Your task to perform on an android device: open app "LiveIn - Share Your Moment" (install if not already installed), go to login, and select forgot password Image 0: 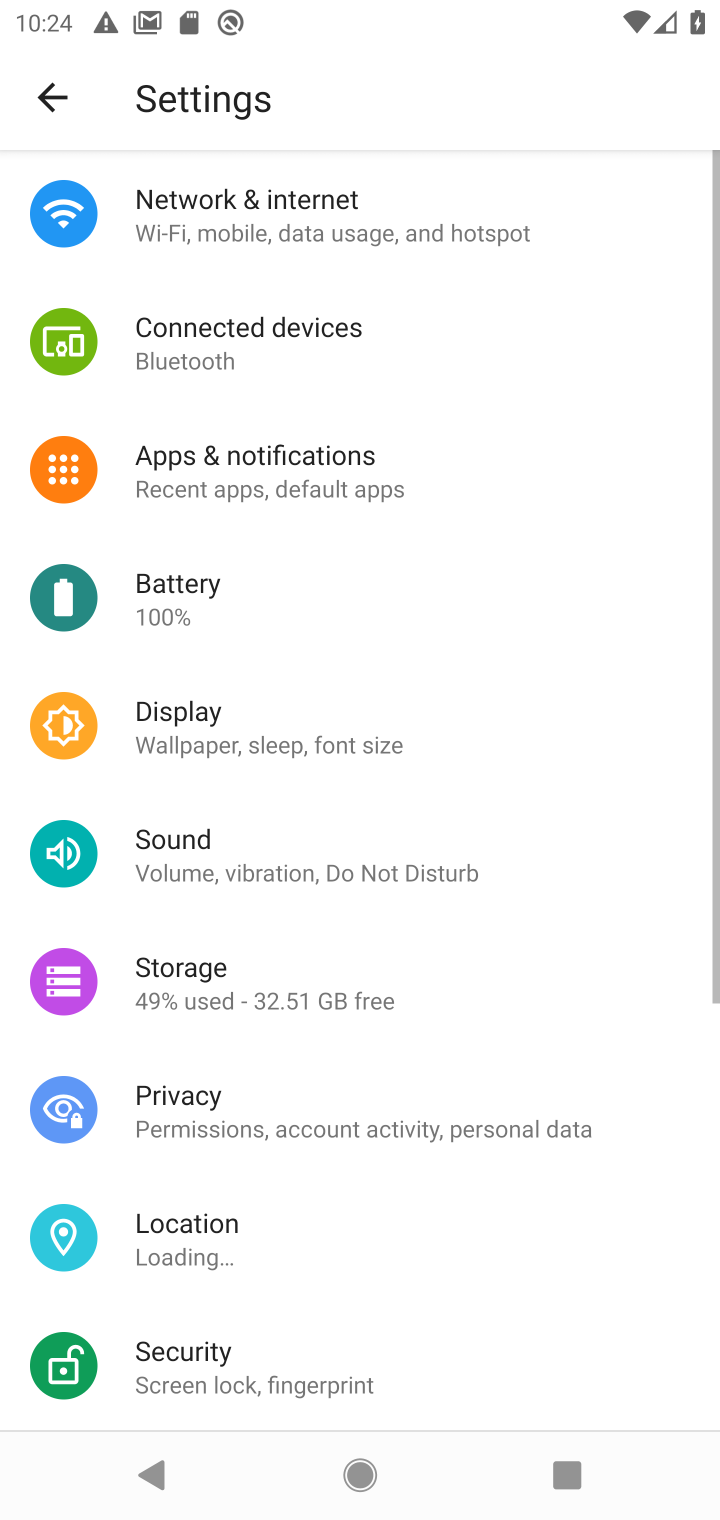
Step 0: press home button
Your task to perform on an android device: open app "LiveIn - Share Your Moment" (install if not already installed), go to login, and select forgot password Image 1: 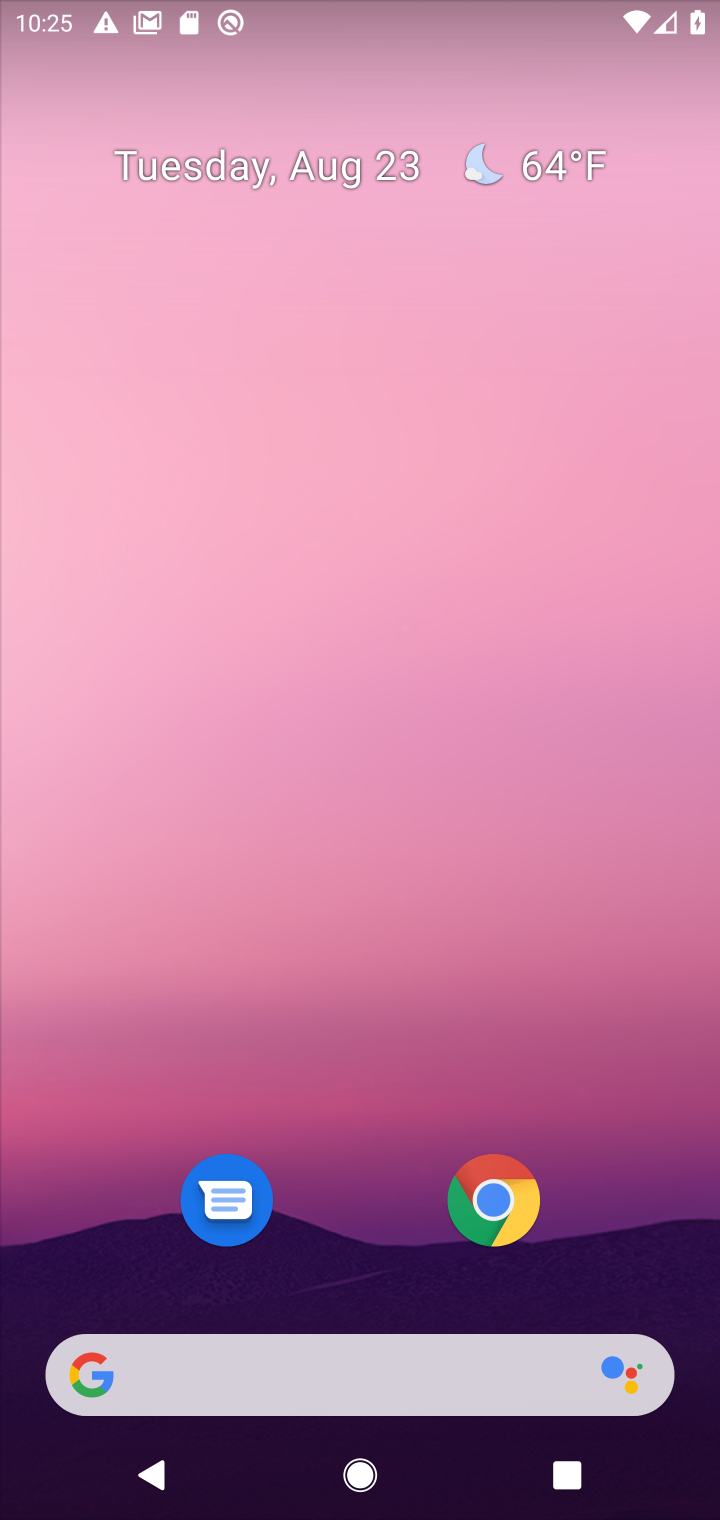
Step 1: drag from (375, 1308) to (250, 350)
Your task to perform on an android device: open app "LiveIn - Share Your Moment" (install if not already installed), go to login, and select forgot password Image 2: 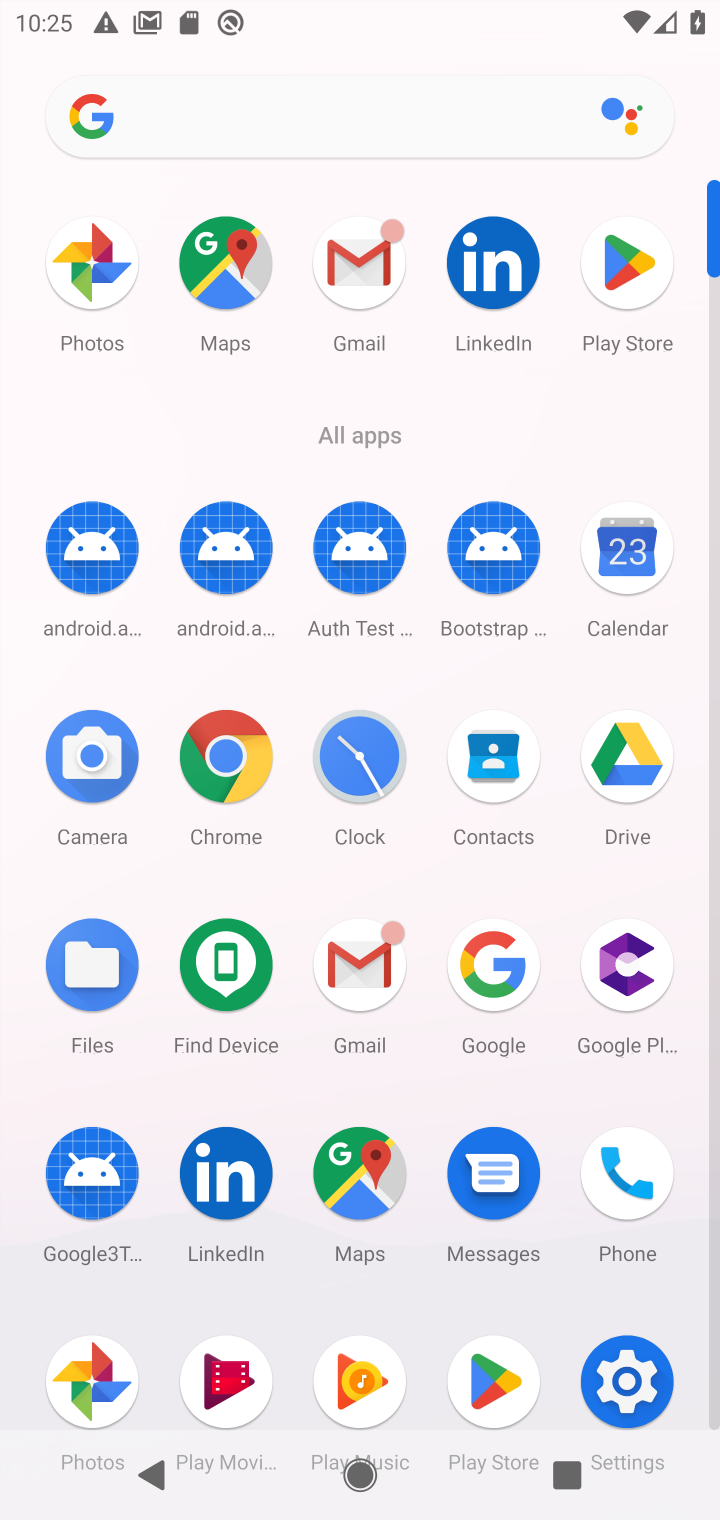
Step 2: click (635, 312)
Your task to perform on an android device: open app "LiveIn - Share Your Moment" (install if not already installed), go to login, and select forgot password Image 3: 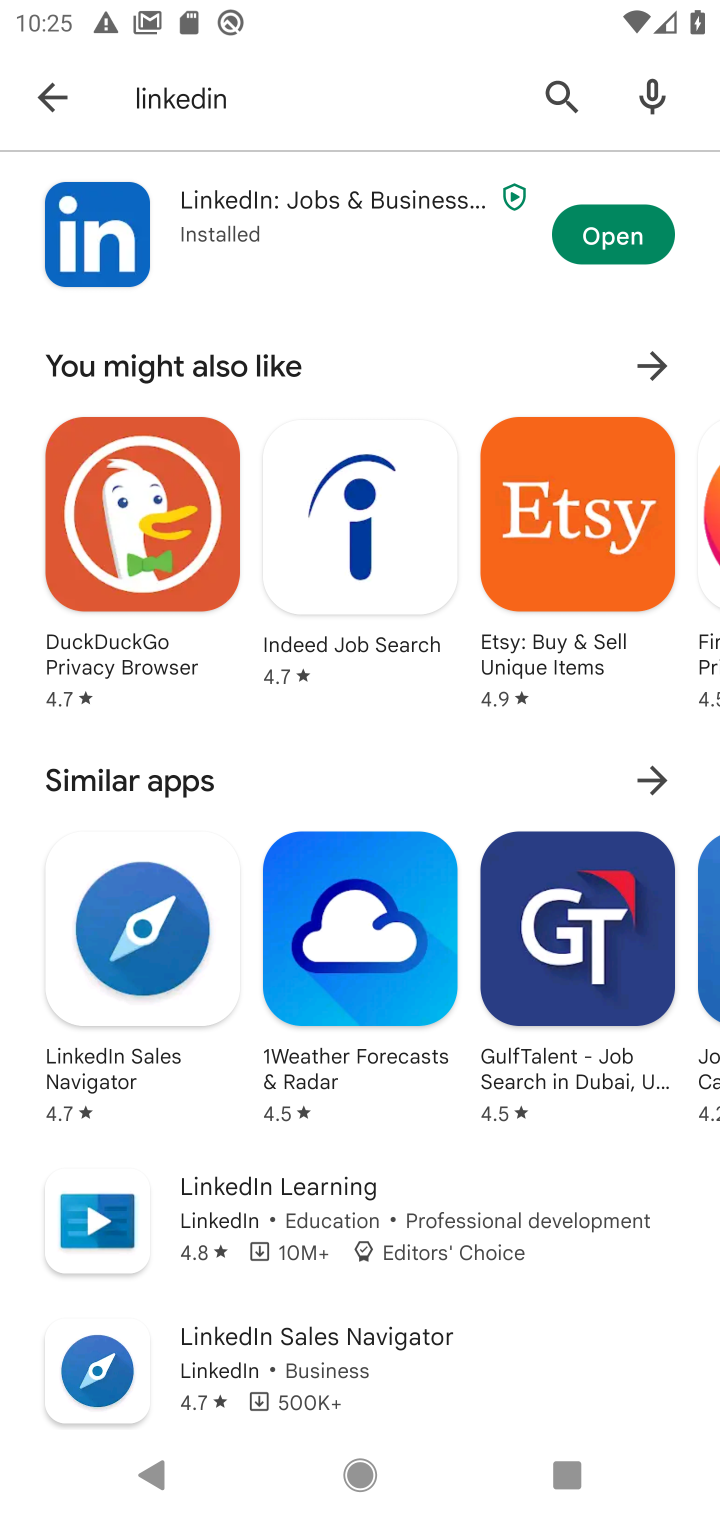
Step 3: click (53, 108)
Your task to perform on an android device: open app "LiveIn - Share Your Moment" (install if not already installed), go to login, and select forgot password Image 4: 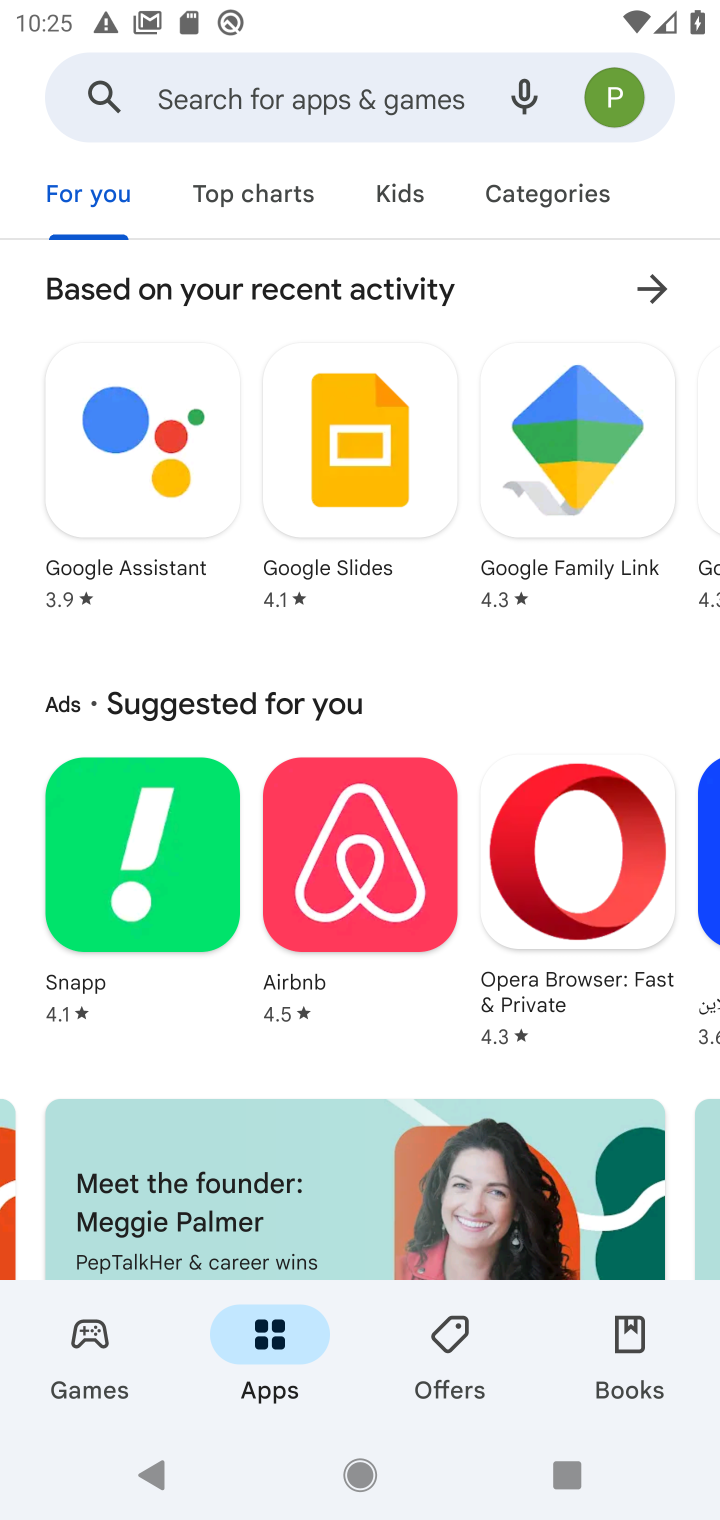
Step 4: click (140, 92)
Your task to perform on an android device: open app "LiveIn - Share Your Moment" (install if not already installed), go to login, and select forgot password Image 5: 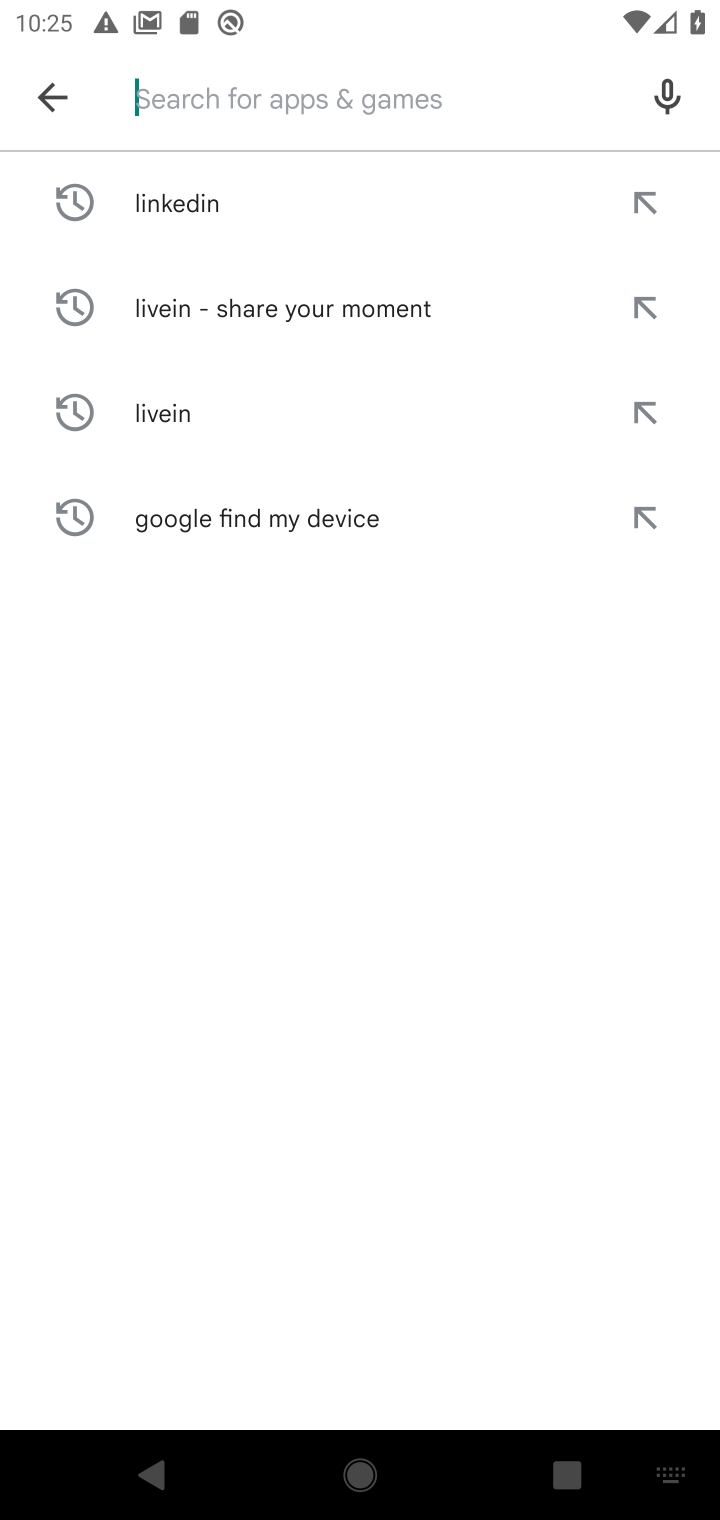
Step 5: type "LiveIn - Share Your Moment"
Your task to perform on an android device: open app "LiveIn - Share Your Moment" (install if not already installed), go to login, and select forgot password Image 6: 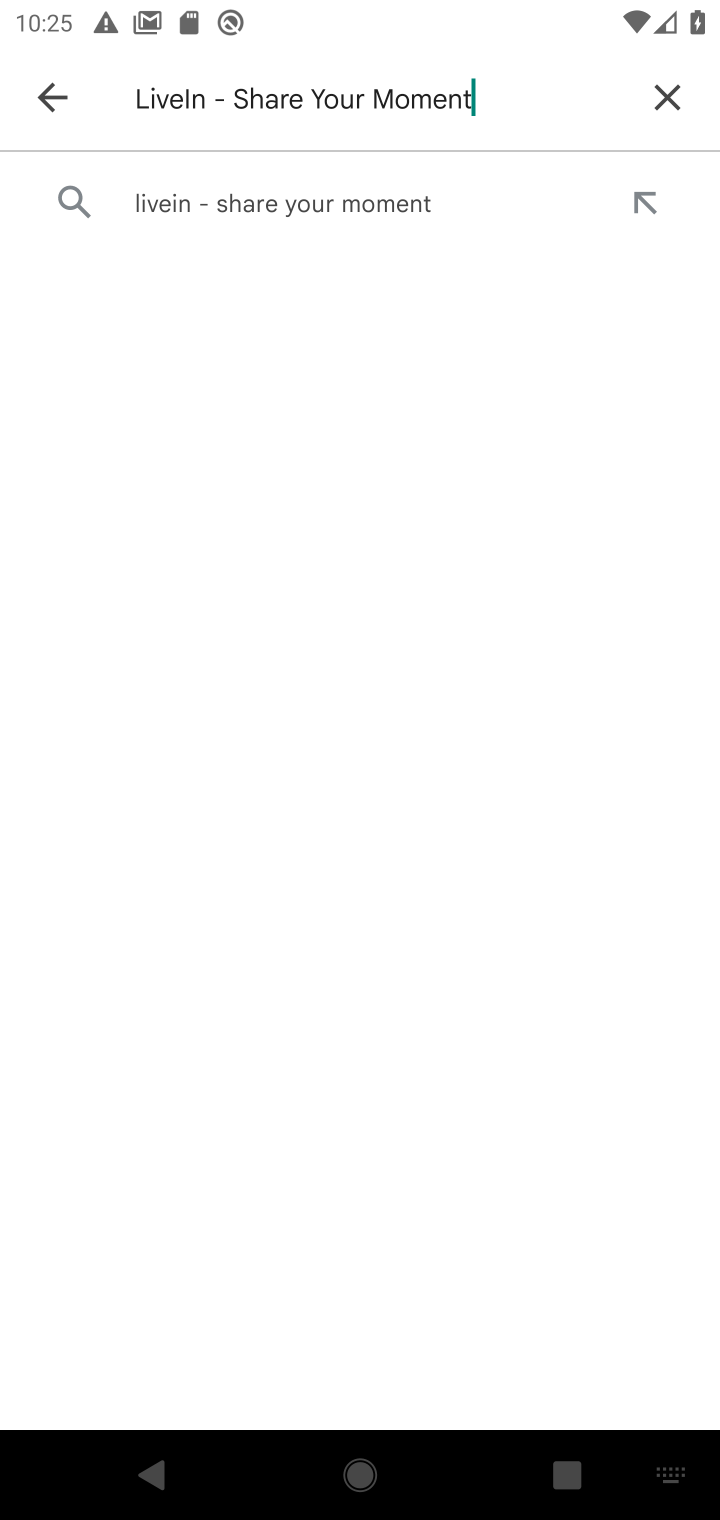
Step 6: click (299, 177)
Your task to perform on an android device: open app "LiveIn - Share Your Moment" (install if not already installed), go to login, and select forgot password Image 7: 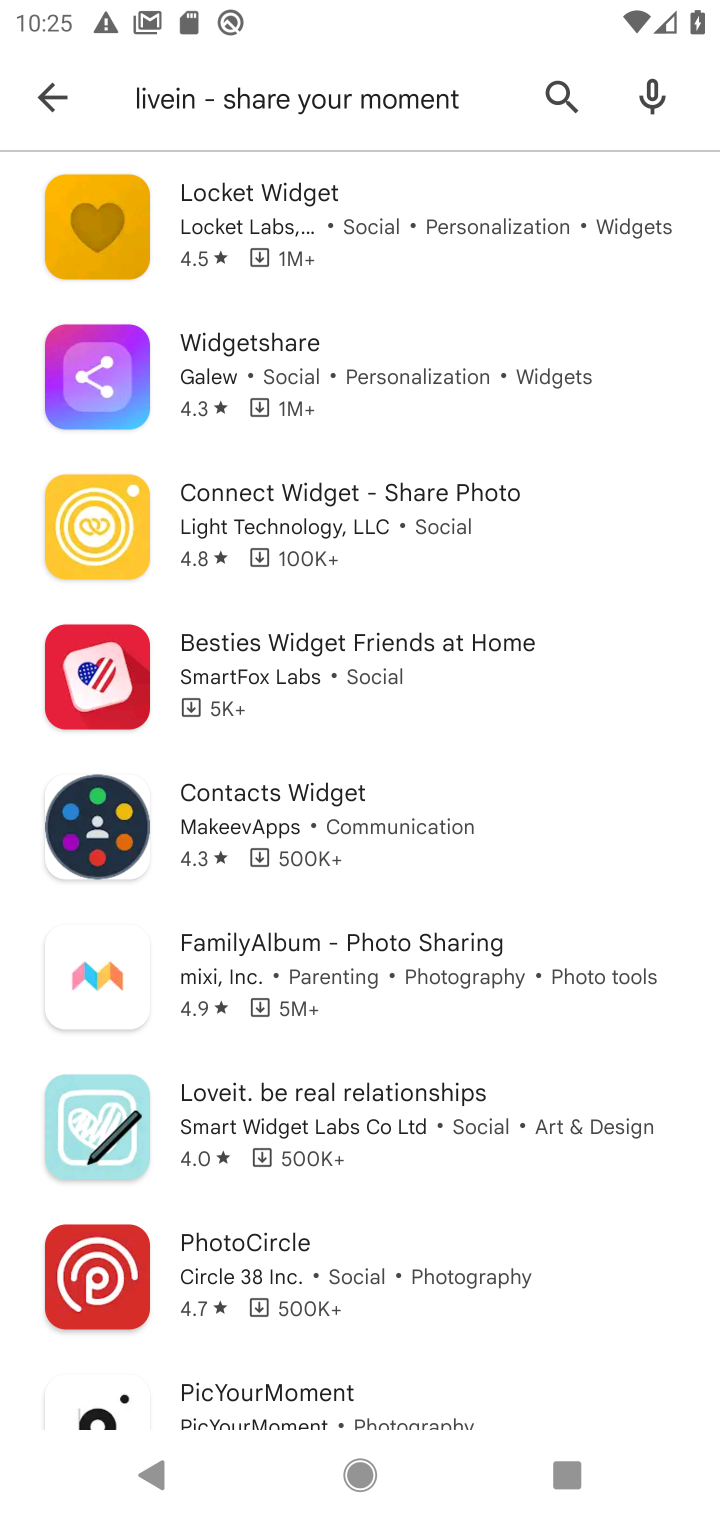
Step 7: drag from (173, 664) to (133, 270)
Your task to perform on an android device: open app "LiveIn - Share Your Moment" (install if not already installed), go to login, and select forgot password Image 8: 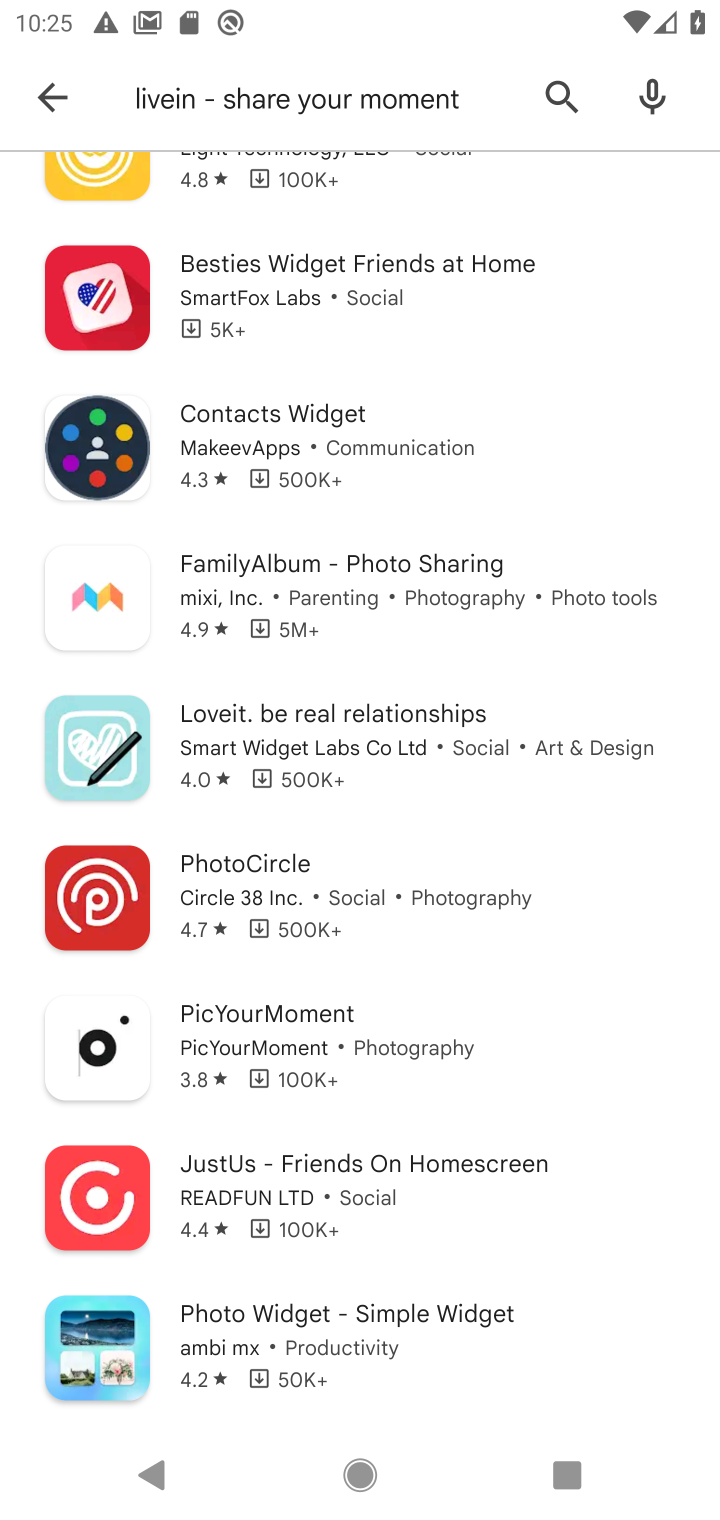
Step 8: drag from (388, 1014) to (562, 50)
Your task to perform on an android device: open app "LiveIn - Share Your Moment" (install if not already installed), go to login, and select forgot password Image 9: 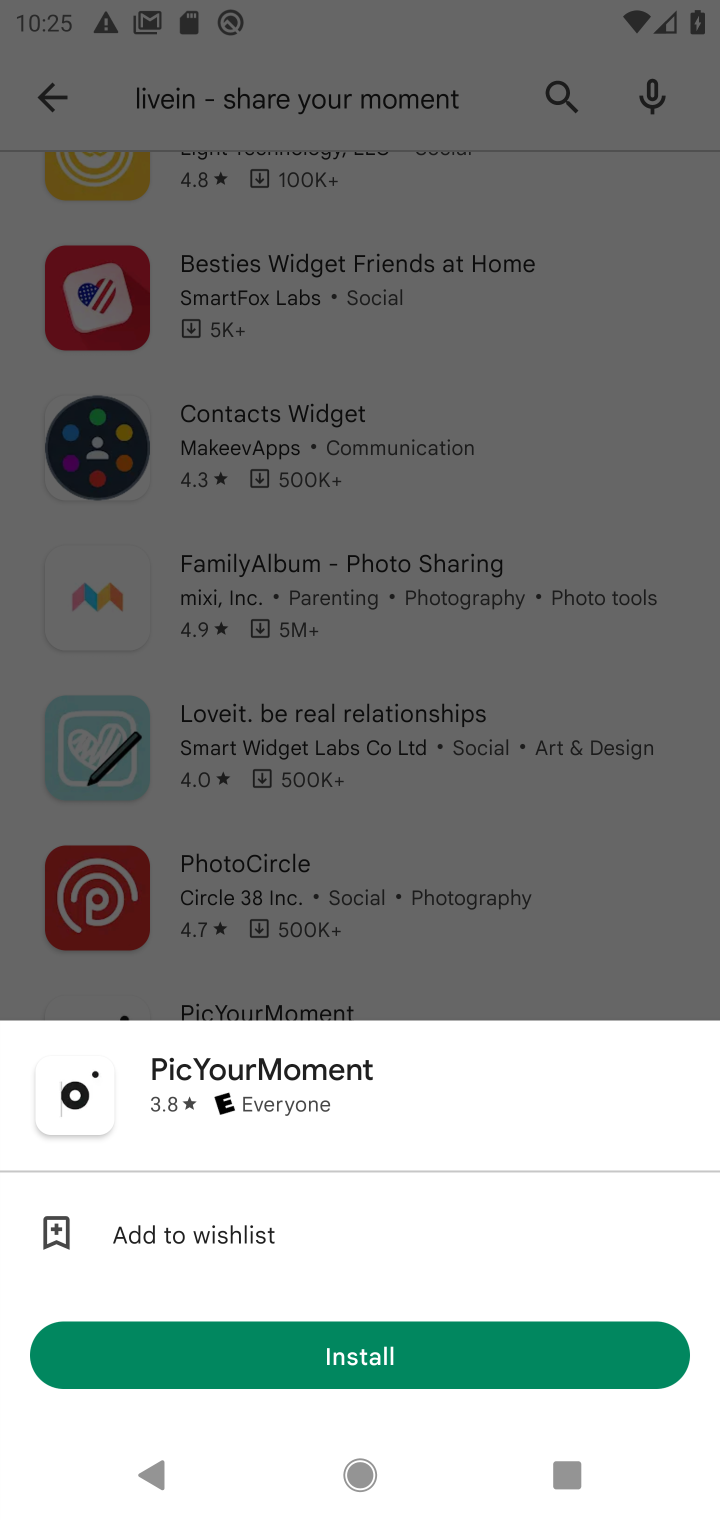
Step 9: click (678, 660)
Your task to perform on an android device: open app "LiveIn - Share Your Moment" (install if not already installed), go to login, and select forgot password Image 10: 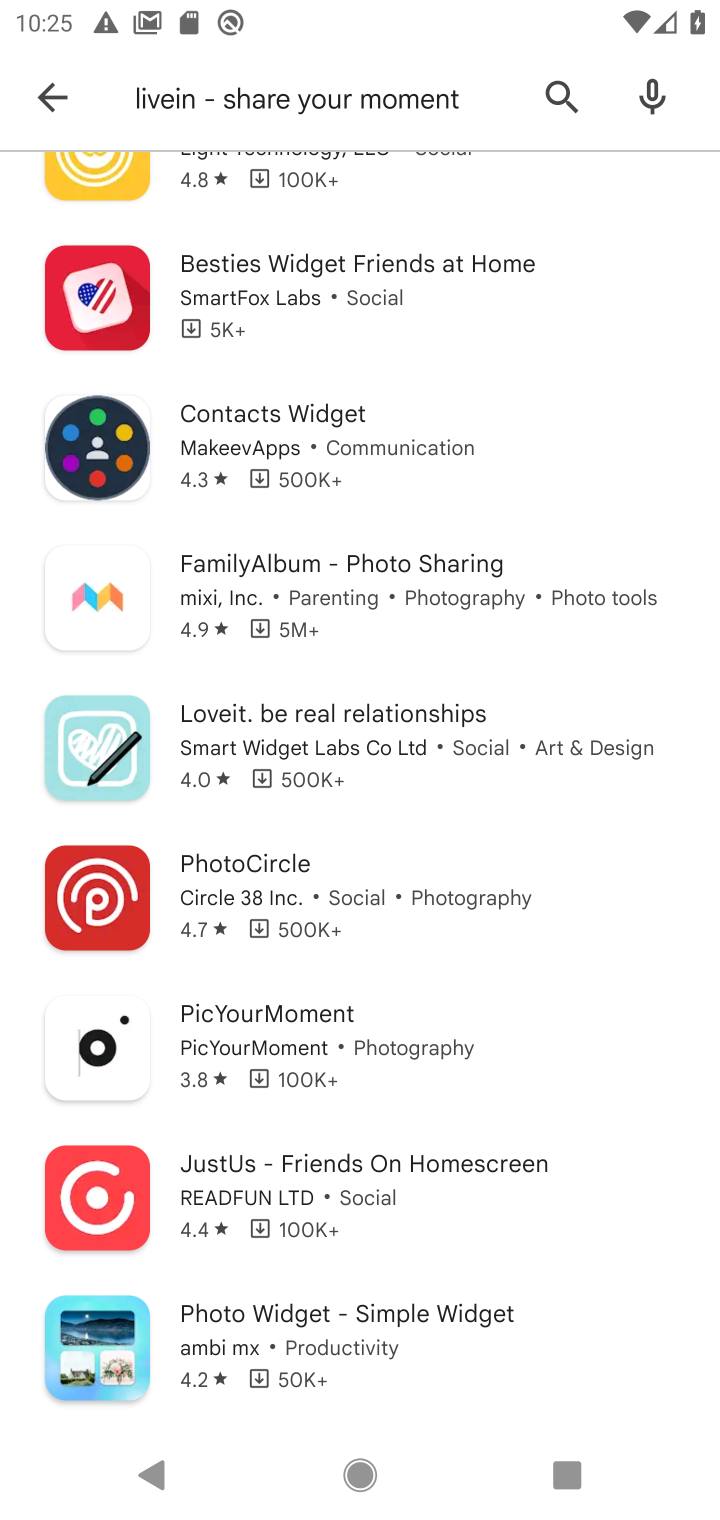
Step 10: task complete